Your task to perform on an android device: Go to internet settings Image 0: 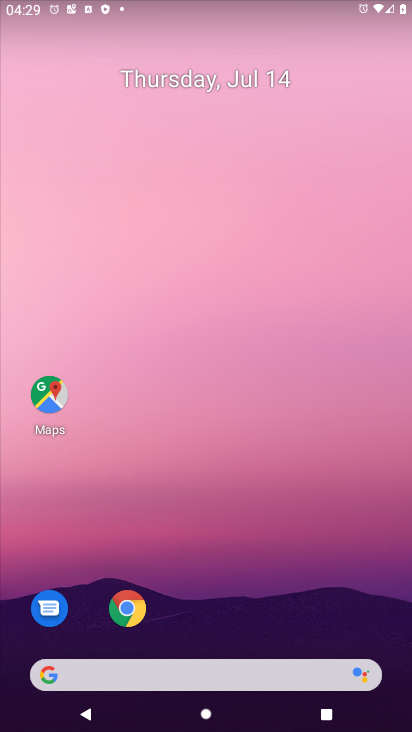
Step 0: drag from (388, 647) to (357, 145)
Your task to perform on an android device: Go to internet settings Image 1: 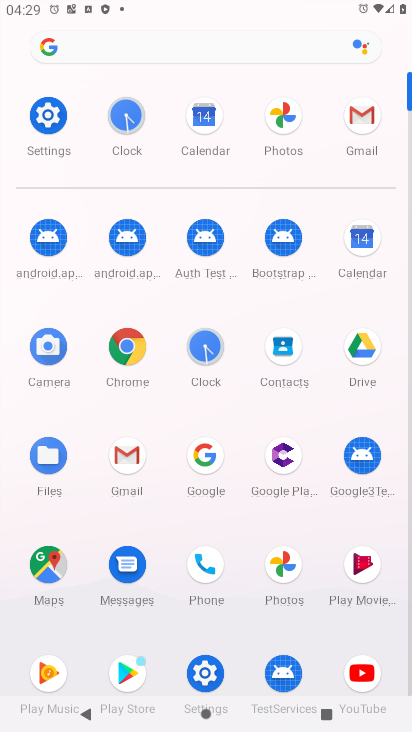
Step 1: click (204, 674)
Your task to perform on an android device: Go to internet settings Image 2: 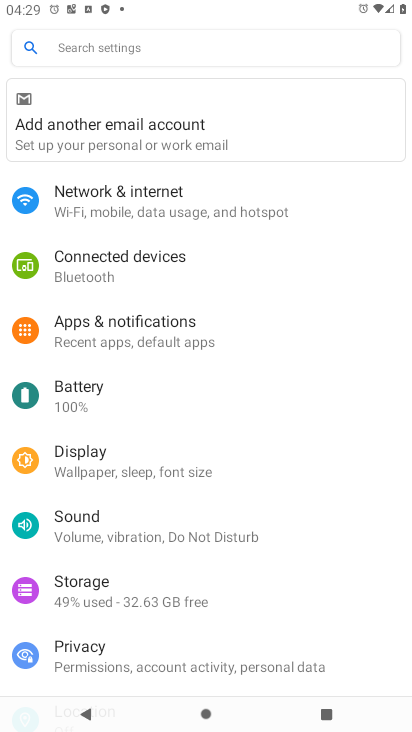
Step 2: click (92, 198)
Your task to perform on an android device: Go to internet settings Image 3: 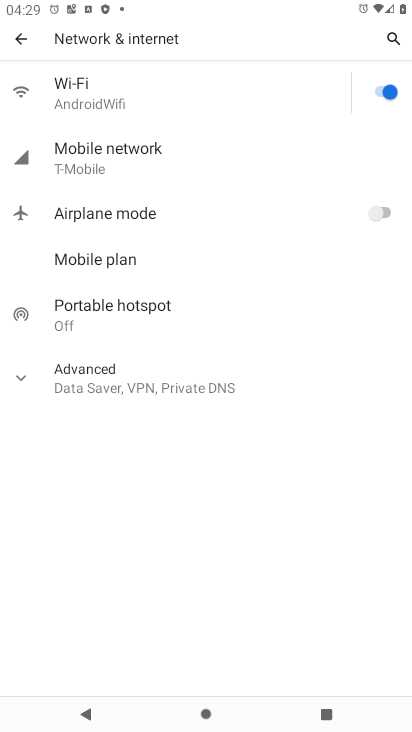
Step 3: click (73, 88)
Your task to perform on an android device: Go to internet settings Image 4: 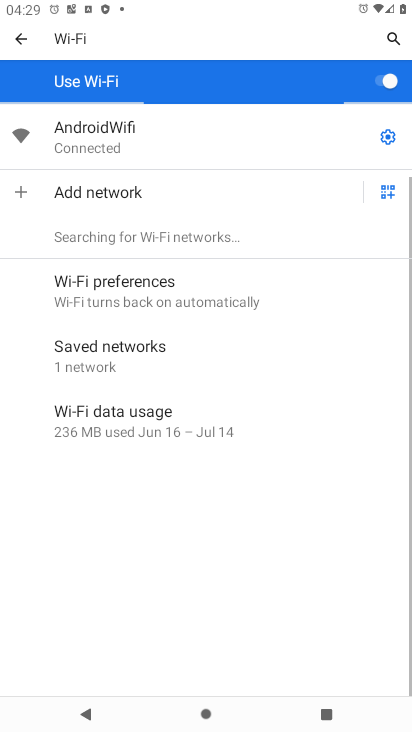
Step 4: task complete